Your task to perform on an android device: turn on priority inbox in the gmail app Image 0: 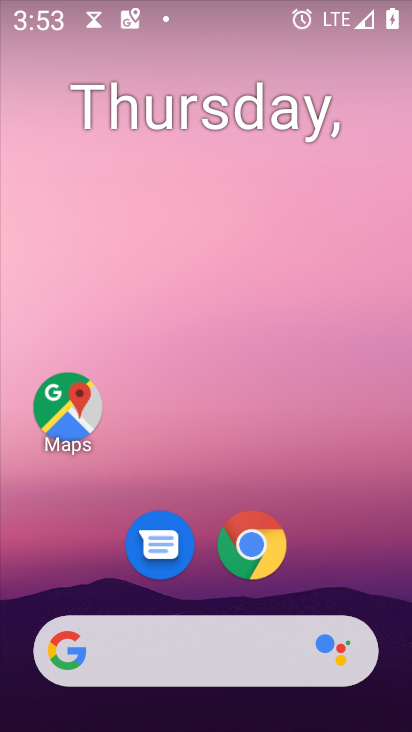
Step 0: drag from (342, 538) to (336, 72)
Your task to perform on an android device: turn on priority inbox in the gmail app Image 1: 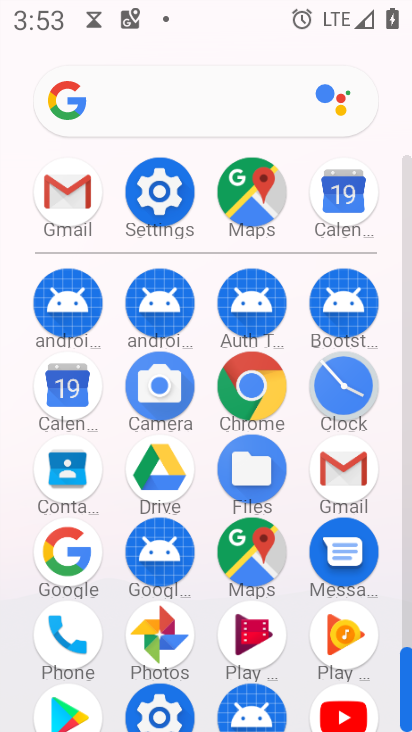
Step 1: click (78, 194)
Your task to perform on an android device: turn on priority inbox in the gmail app Image 2: 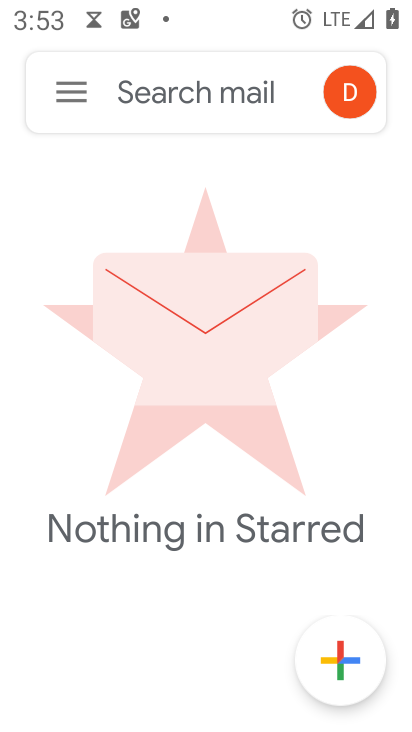
Step 2: click (63, 51)
Your task to perform on an android device: turn on priority inbox in the gmail app Image 3: 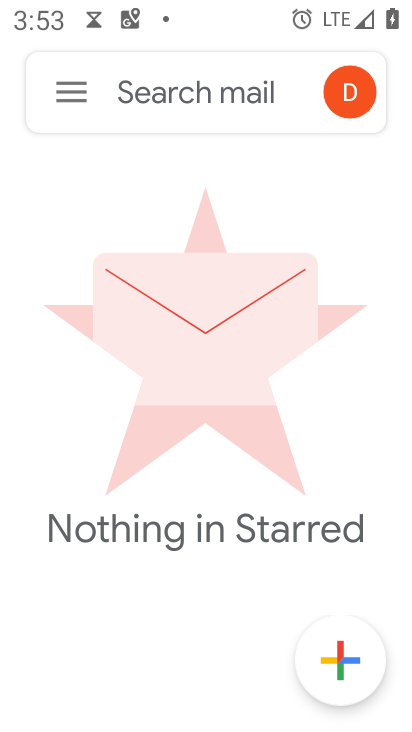
Step 3: click (67, 87)
Your task to perform on an android device: turn on priority inbox in the gmail app Image 4: 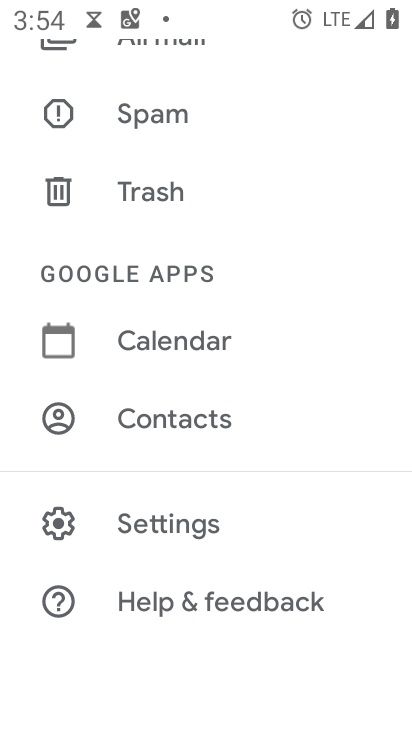
Step 4: click (193, 520)
Your task to perform on an android device: turn on priority inbox in the gmail app Image 5: 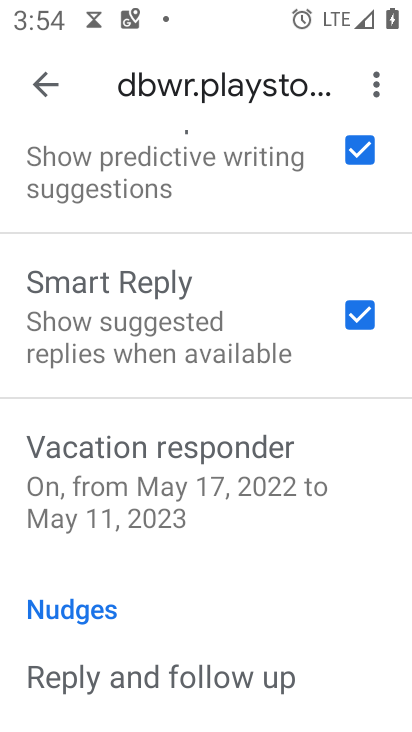
Step 5: drag from (173, 279) to (218, 699)
Your task to perform on an android device: turn on priority inbox in the gmail app Image 6: 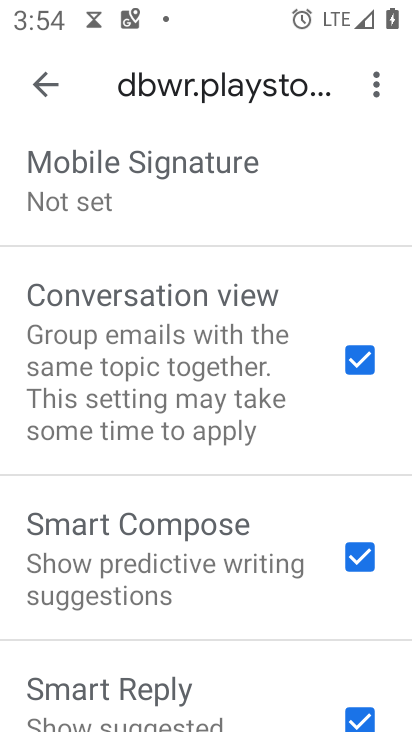
Step 6: drag from (158, 239) to (188, 674)
Your task to perform on an android device: turn on priority inbox in the gmail app Image 7: 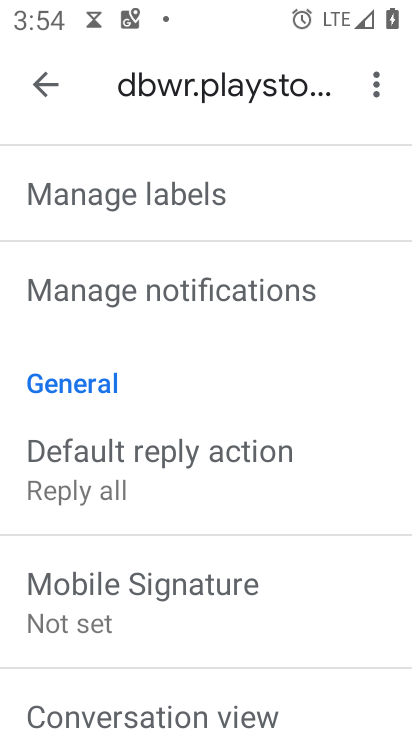
Step 7: drag from (105, 198) to (168, 626)
Your task to perform on an android device: turn on priority inbox in the gmail app Image 8: 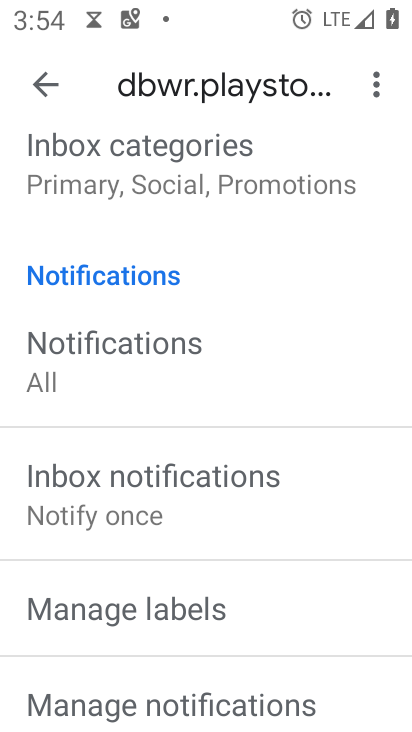
Step 8: drag from (100, 117) to (135, 594)
Your task to perform on an android device: turn on priority inbox in the gmail app Image 9: 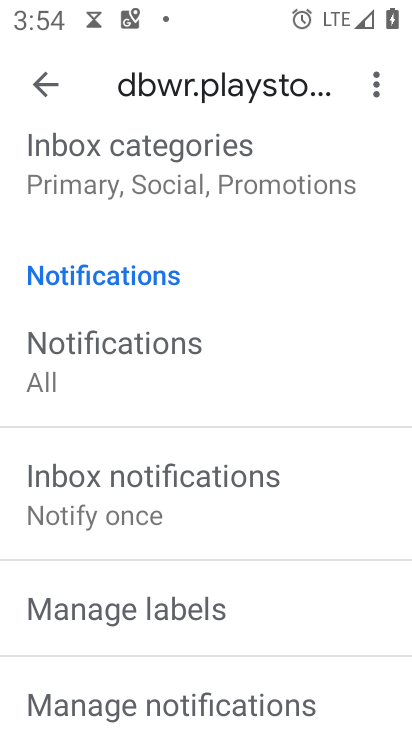
Step 9: drag from (106, 168) to (153, 600)
Your task to perform on an android device: turn on priority inbox in the gmail app Image 10: 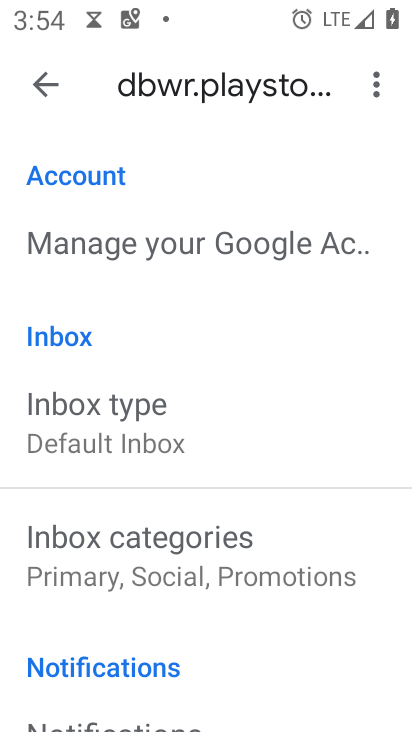
Step 10: click (114, 433)
Your task to perform on an android device: turn on priority inbox in the gmail app Image 11: 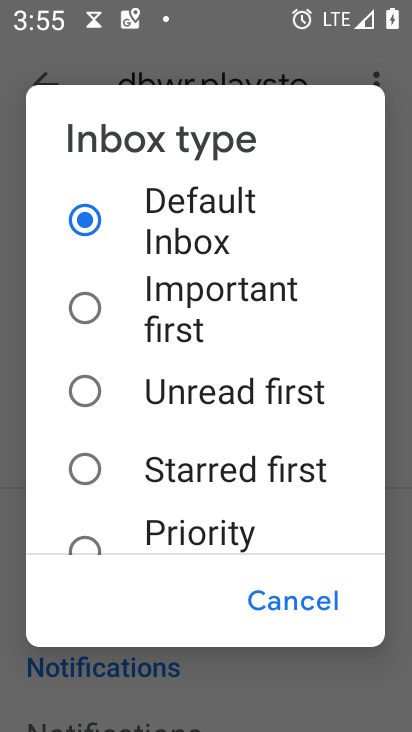
Step 11: drag from (133, 490) to (183, 178)
Your task to perform on an android device: turn on priority inbox in the gmail app Image 12: 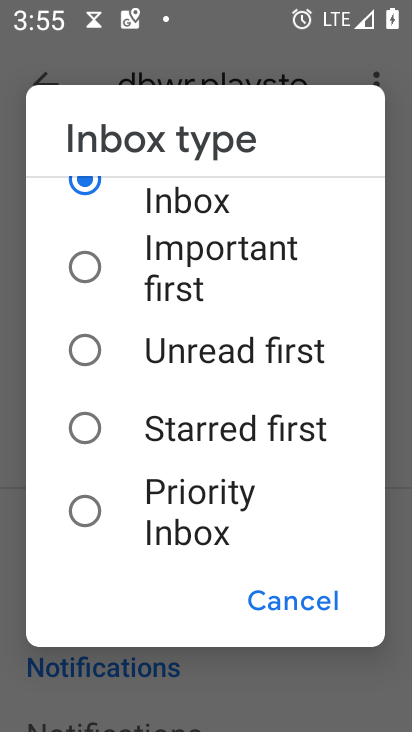
Step 12: click (179, 518)
Your task to perform on an android device: turn on priority inbox in the gmail app Image 13: 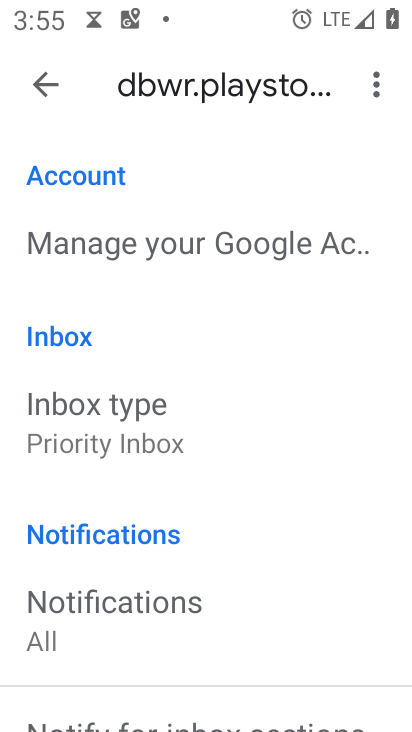
Step 13: task complete